Your task to perform on an android device: change keyboard looks Image 0: 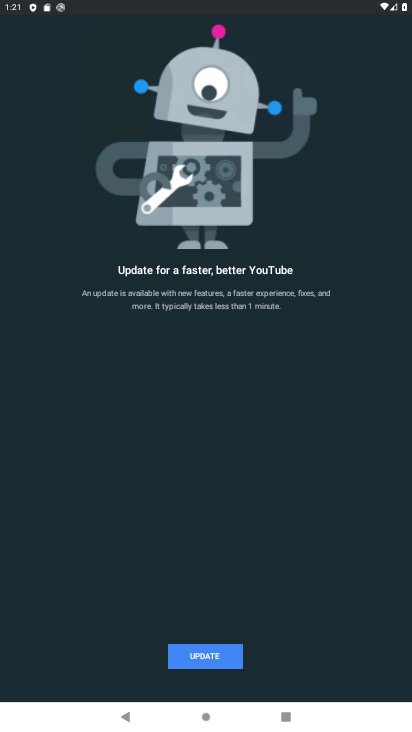
Step 0: press home button
Your task to perform on an android device: change keyboard looks Image 1: 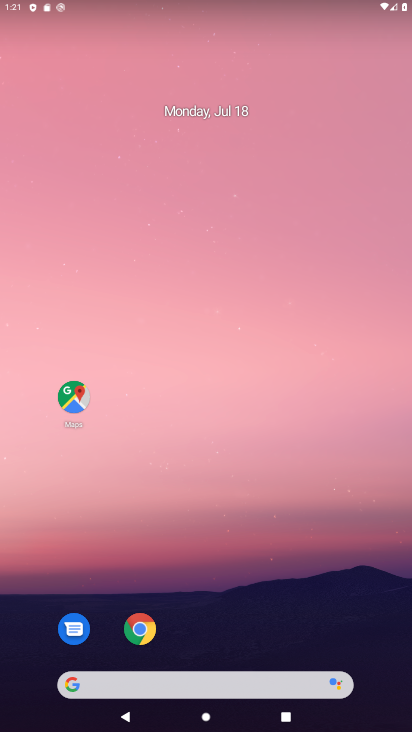
Step 1: drag from (235, 514) to (233, 234)
Your task to perform on an android device: change keyboard looks Image 2: 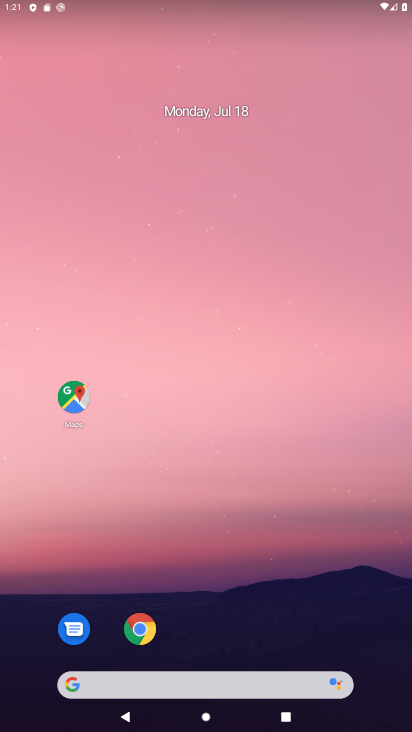
Step 2: drag from (245, 529) to (244, 132)
Your task to perform on an android device: change keyboard looks Image 3: 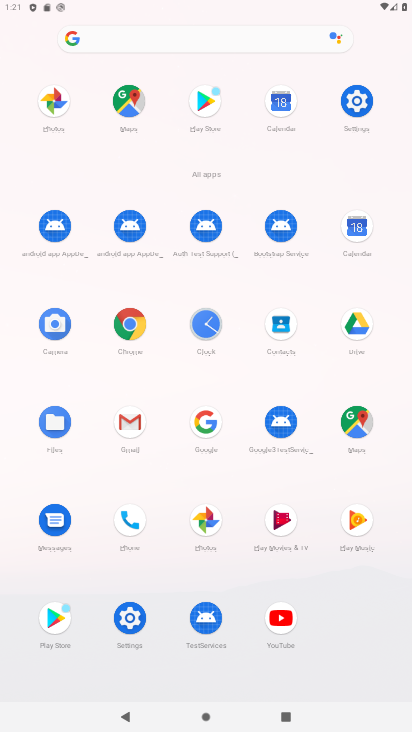
Step 3: click (360, 101)
Your task to perform on an android device: change keyboard looks Image 4: 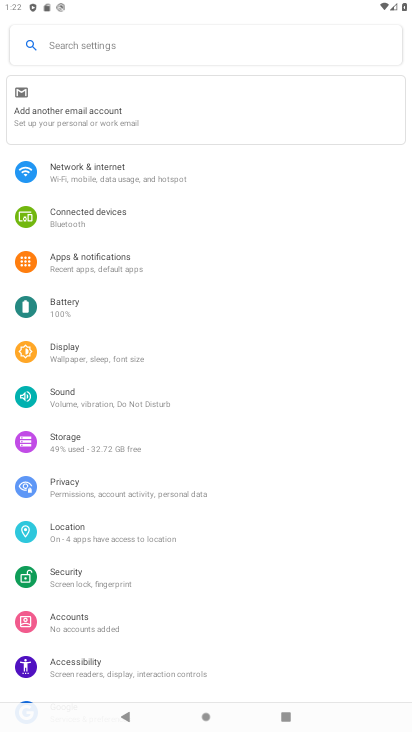
Step 4: task complete